Your task to perform on an android device: Go to Reddit.com Image 0: 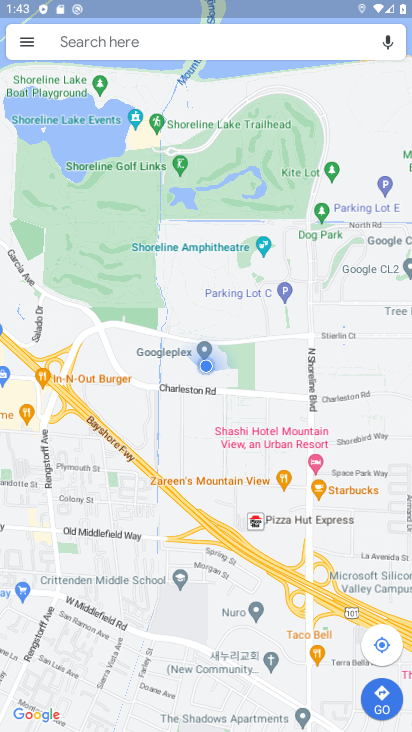
Step 0: press home button
Your task to perform on an android device: Go to Reddit.com Image 1: 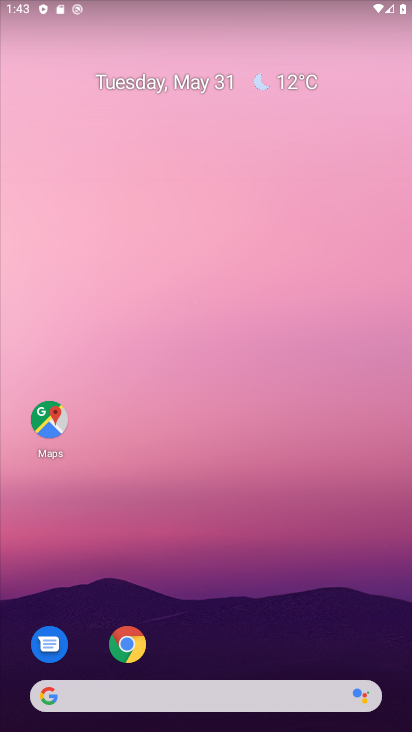
Step 1: click (215, 704)
Your task to perform on an android device: Go to Reddit.com Image 2: 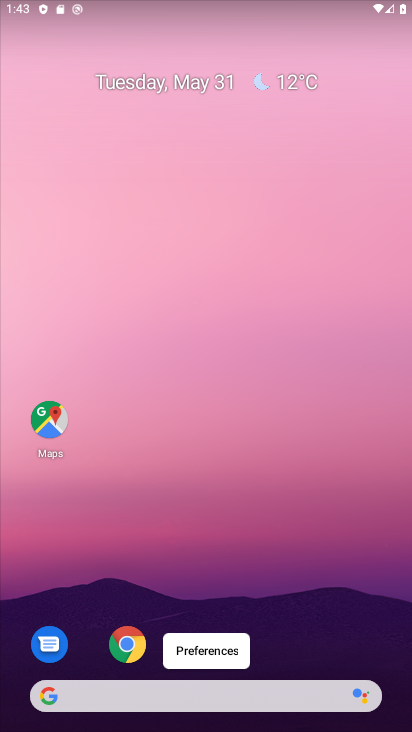
Step 2: click (215, 704)
Your task to perform on an android device: Go to Reddit.com Image 3: 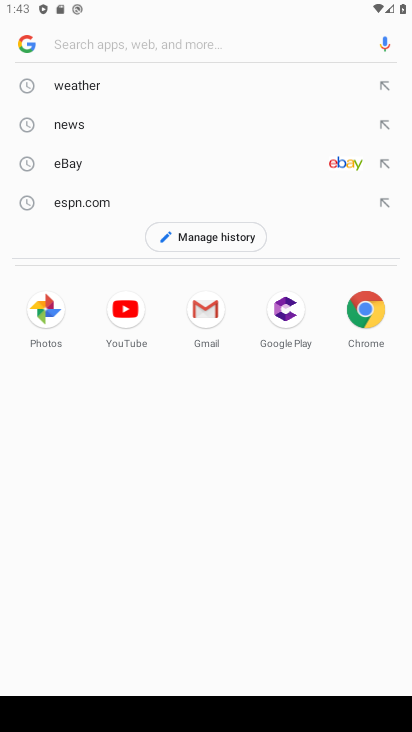
Step 3: type "Reddit.com"
Your task to perform on an android device: Go to Reddit.com Image 4: 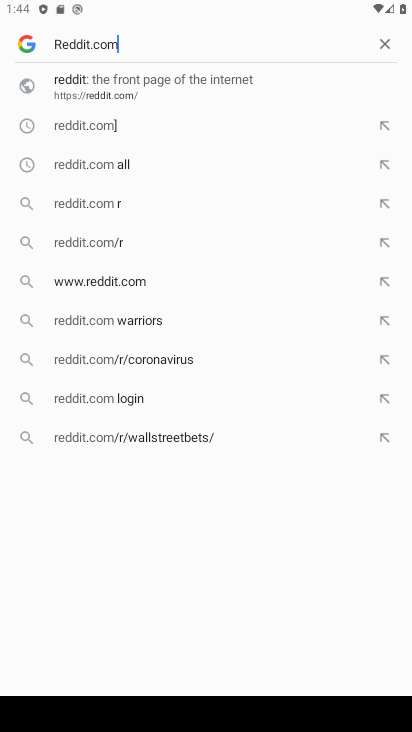
Step 4: click (162, 91)
Your task to perform on an android device: Go to Reddit.com Image 5: 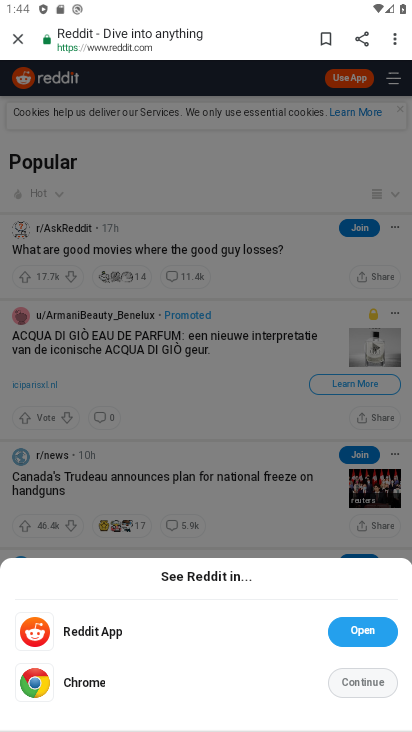
Step 5: click (376, 685)
Your task to perform on an android device: Go to Reddit.com Image 6: 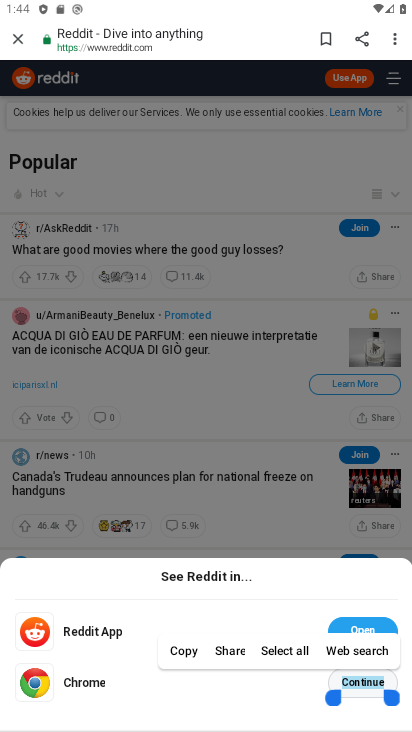
Step 6: click (260, 703)
Your task to perform on an android device: Go to Reddit.com Image 7: 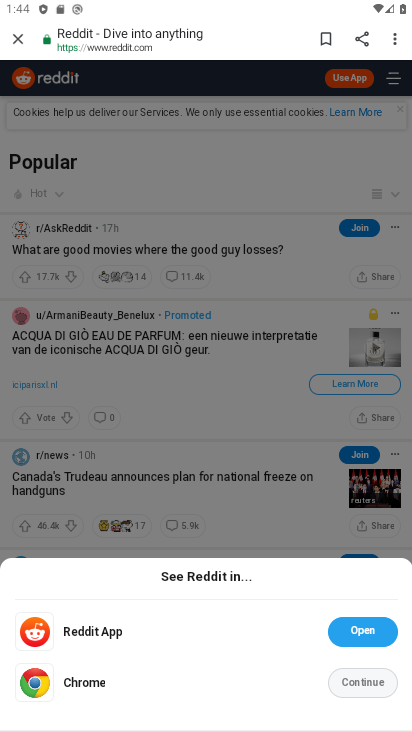
Step 7: click (368, 696)
Your task to perform on an android device: Go to Reddit.com Image 8: 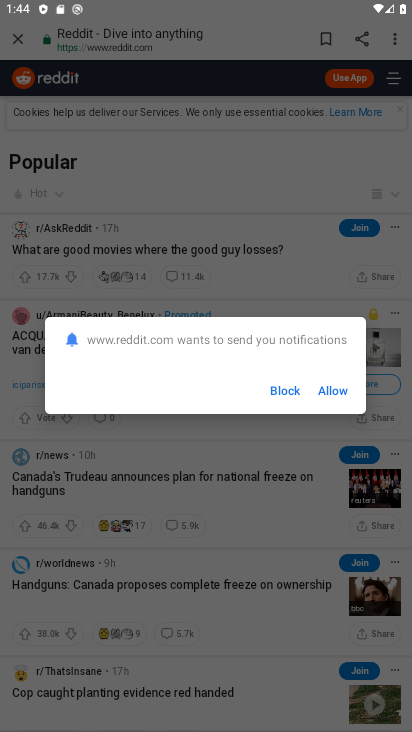
Step 8: click (349, 387)
Your task to perform on an android device: Go to Reddit.com Image 9: 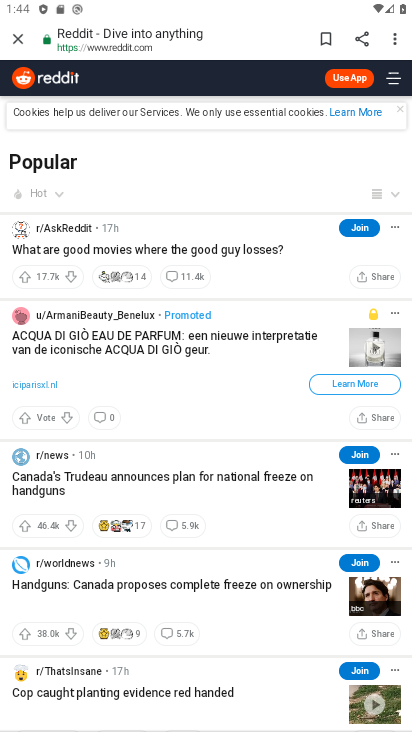
Step 9: task complete